Your task to perform on an android device: Show me the top rated dinnerware on Crate & Barrel Image 0: 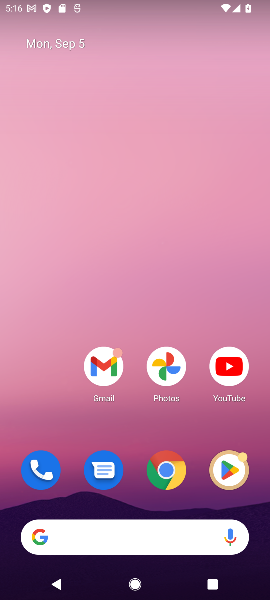
Step 0: click (119, 546)
Your task to perform on an android device: Show me the top rated dinnerware on Crate & Barrel Image 1: 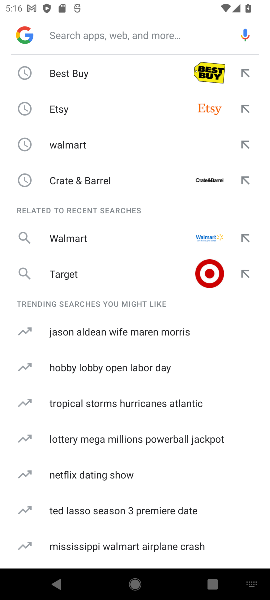
Step 1: click (85, 182)
Your task to perform on an android device: Show me the top rated dinnerware on Crate & Barrel Image 2: 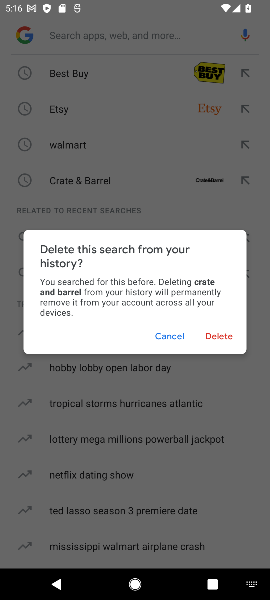
Step 2: click (125, 178)
Your task to perform on an android device: Show me the top rated dinnerware on Crate & Barrel Image 3: 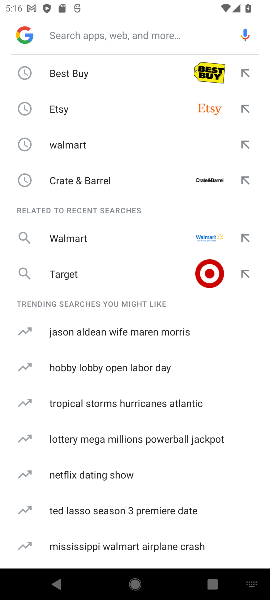
Step 3: click (128, 178)
Your task to perform on an android device: Show me the top rated dinnerware on Crate & Barrel Image 4: 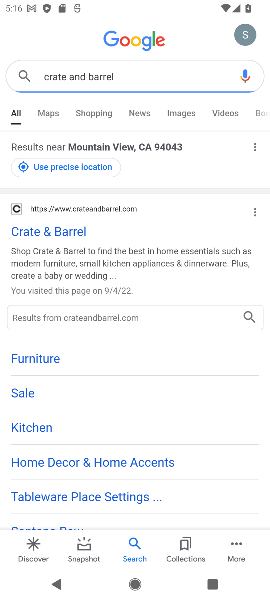
Step 4: click (96, 230)
Your task to perform on an android device: Show me the top rated dinnerware on Crate & Barrel Image 5: 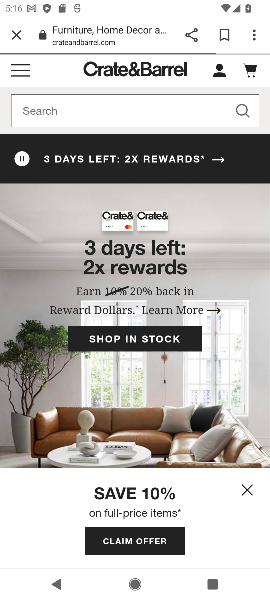
Step 5: click (53, 107)
Your task to perform on an android device: Show me the top rated dinnerware on Crate & Barrel Image 6: 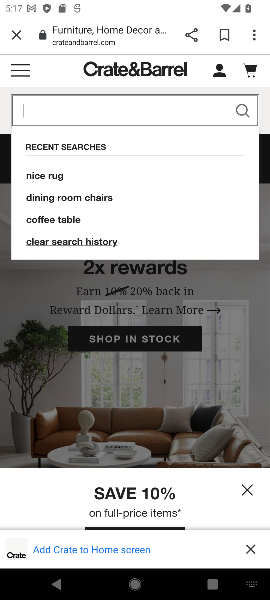
Step 6: type "dinnerware"
Your task to perform on an android device: Show me the top rated dinnerware on Crate & Barrel Image 7: 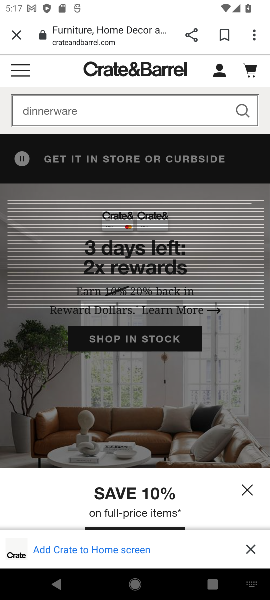
Step 7: press enter
Your task to perform on an android device: Show me the top rated dinnerware on Crate & Barrel Image 8: 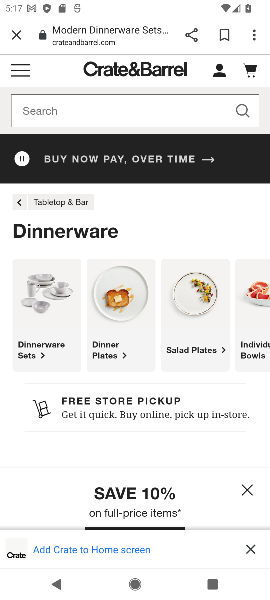
Step 8: click (151, 214)
Your task to perform on an android device: Show me the top rated dinnerware on Crate & Barrel Image 9: 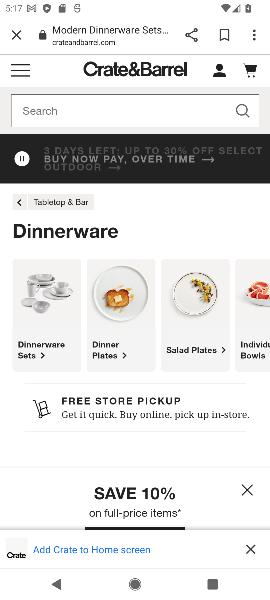
Step 9: drag from (147, 208) to (162, 101)
Your task to perform on an android device: Show me the top rated dinnerware on Crate & Barrel Image 10: 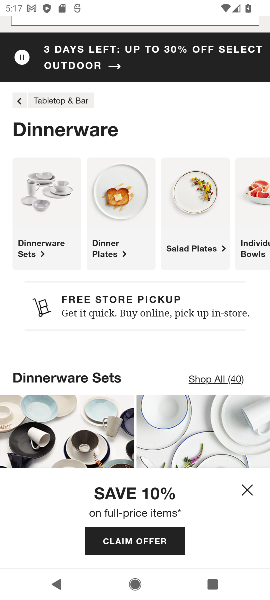
Step 10: drag from (146, 358) to (173, 424)
Your task to perform on an android device: Show me the top rated dinnerware on Crate & Barrel Image 11: 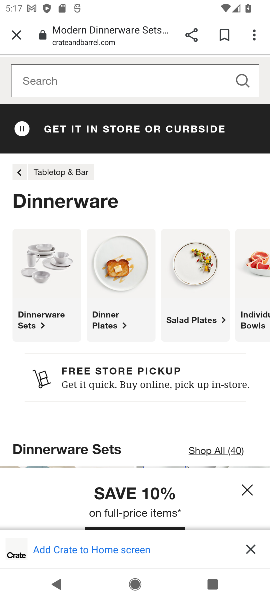
Step 11: click (145, 236)
Your task to perform on an android device: Show me the top rated dinnerware on Crate & Barrel Image 12: 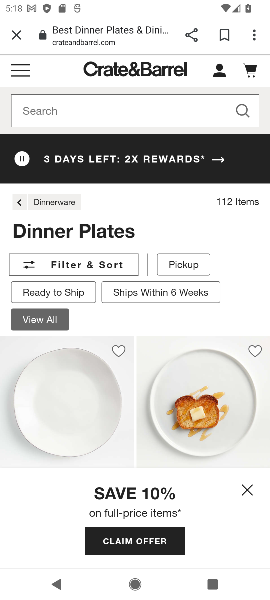
Step 12: click (94, 259)
Your task to perform on an android device: Show me the top rated dinnerware on Crate & Barrel Image 13: 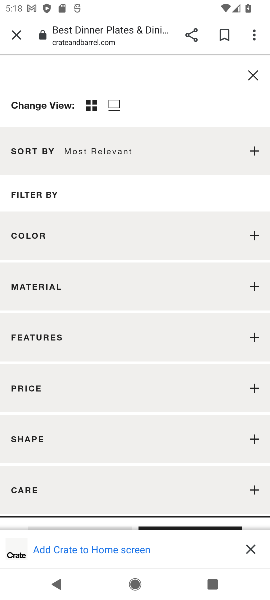
Step 13: drag from (76, 459) to (119, 367)
Your task to perform on an android device: Show me the top rated dinnerware on Crate & Barrel Image 14: 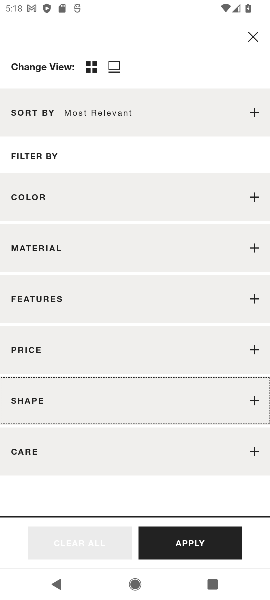
Step 14: click (255, 110)
Your task to perform on an android device: Show me the top rated dinnerware on Crate & Barrel Image 15: 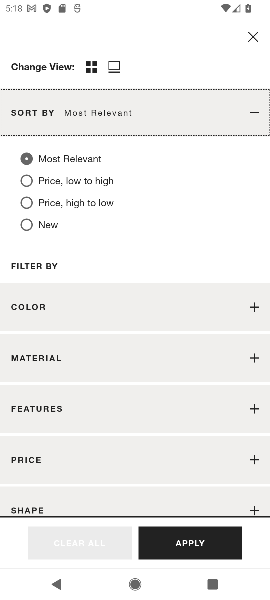
Step 15: click (84, 156)
Your task to perform on an android device: Show me the top rated dinnerware on Crate & Barrel Image 16: 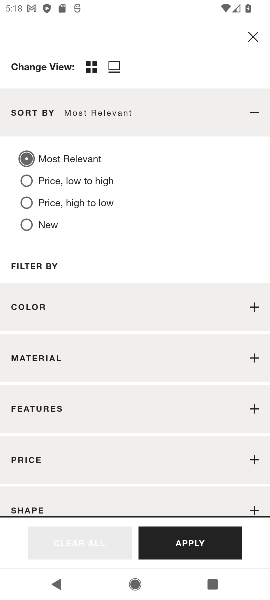
Step 16: click (183, 542)
Your task to perform on an android device: Show me the top rated dinnerware on Crate & Barrel Image 17: 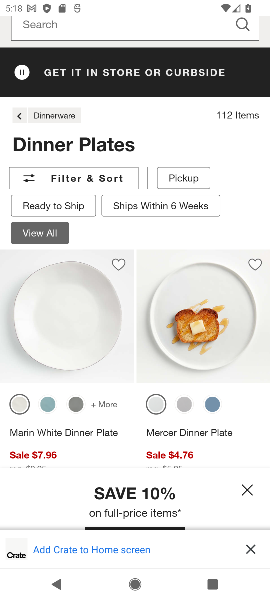
Step 17: task complete